Your task to perform on an android device: turn on improve location accuracy Image 0: 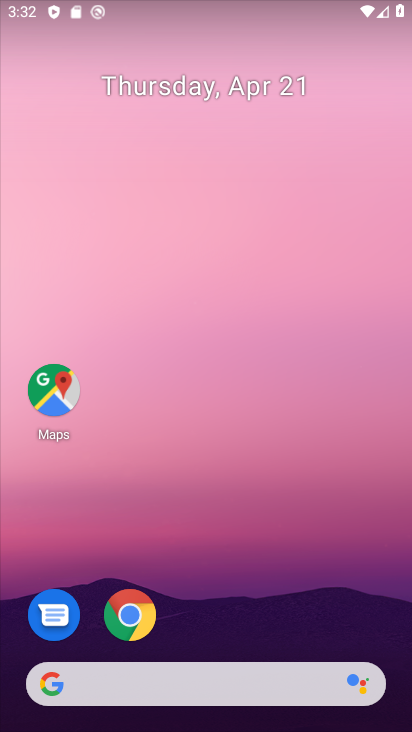
Step 0: drag from (262, 322) to (292, 171)
Your task to perform on an android device: turn on improve location accuracy Image 1: 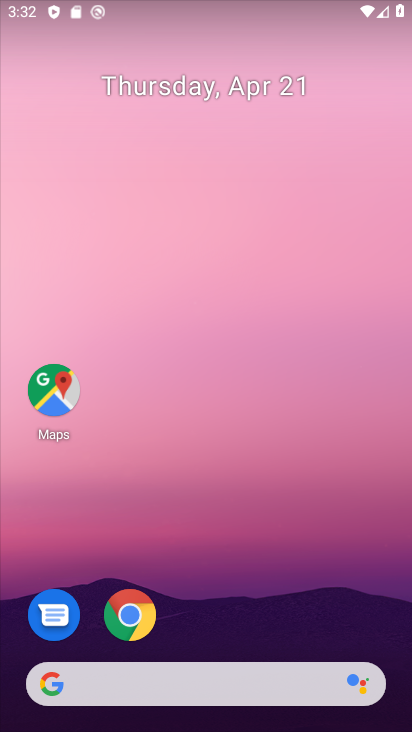
Step 1: drag from (201, 660) to (305, 130)
Your task to perform on an android device: turn on improve location accuracy Image 2: 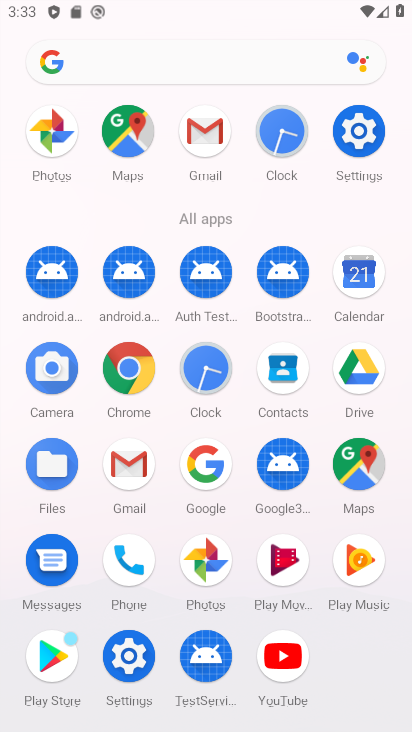
Step 2: click (119, 665)
Your task to perform on an android device: turn on improve location accuracy Image 3: 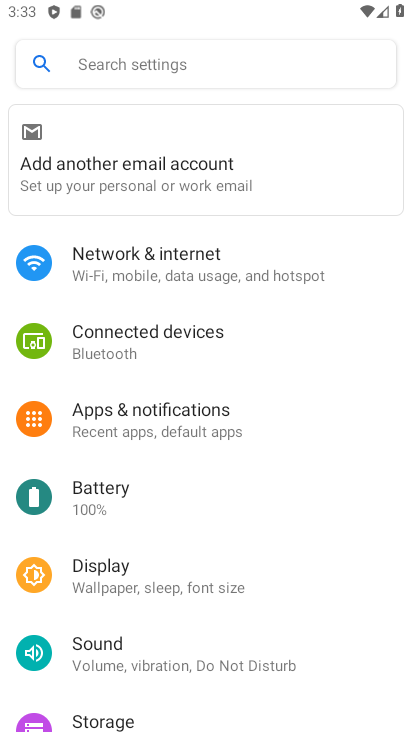
Step 3: drag from (157, 629) to (261, 359)
Your task to perform on an android device: turn on improve location accuracy Image 4: 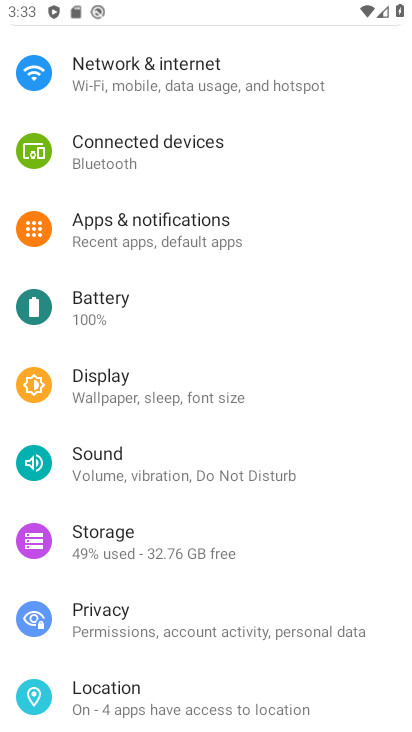
Step 4: drag from (174, 566) to (233, 309)
Your task to perform on an android device: turn on improve location accuracy Image 5: 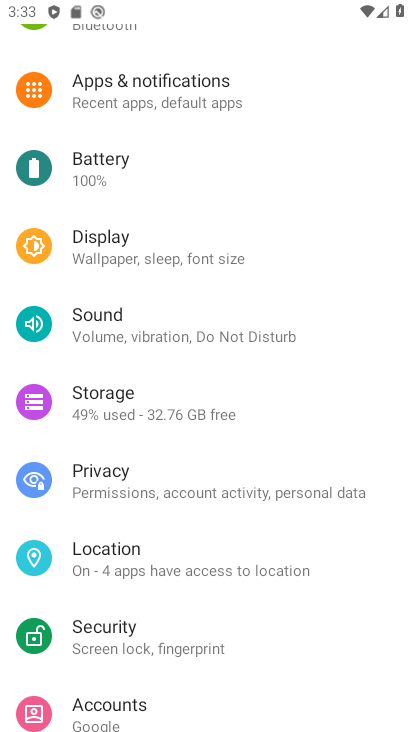
Step 5: click (142, 566)
Your task to perform on an android device: turn on improve location accuracy Image 6: 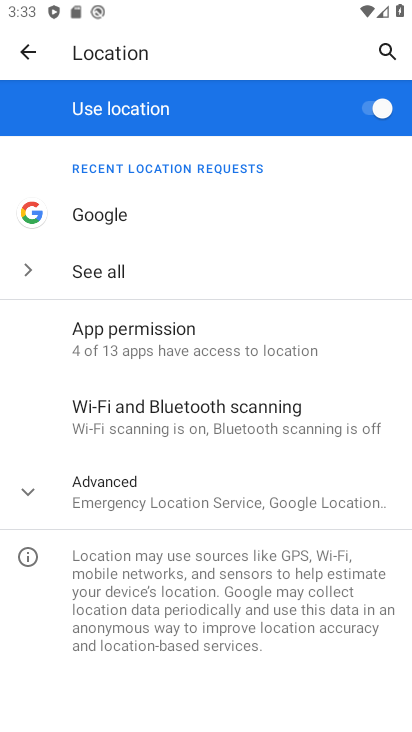
Step 6: click (165, 504)
Your task to perform on an android device: turn on improve location accuracy Image 7: 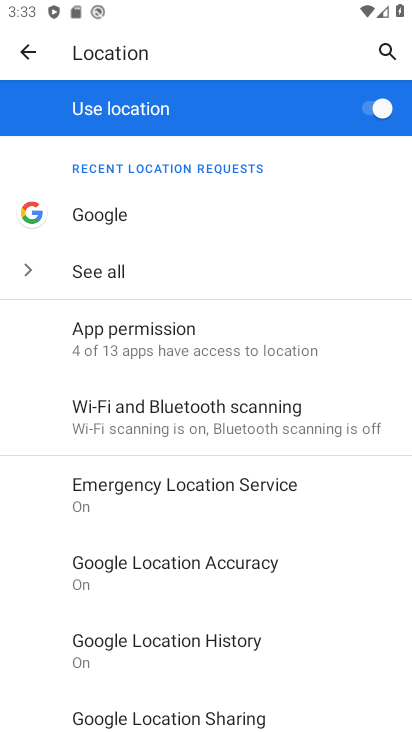
Step 7: drag from (187, 645) to (268, 439)
Your task to perform on an android device: turn on improve location accuracy Image 8: 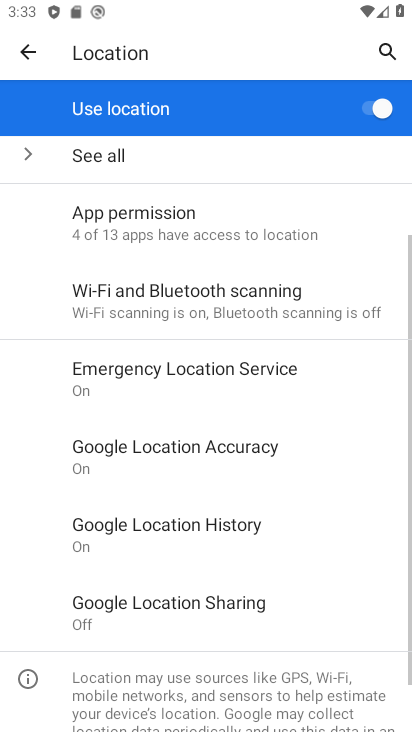
Step 8: click (255, 450)
Your task to perform on an android device: turn on improve location accuracy Image 9: 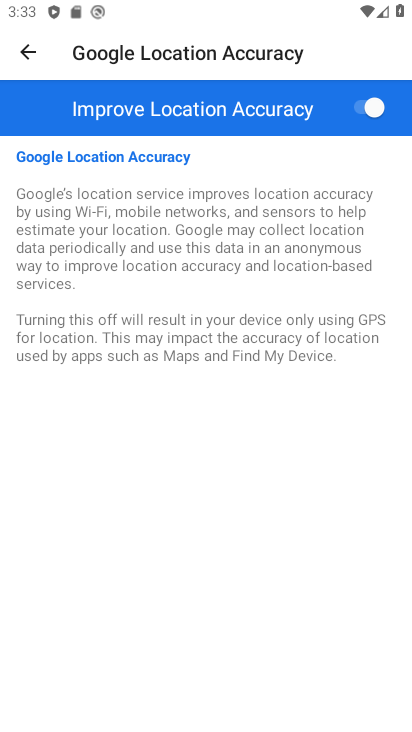
Step 9: task complete